Your task to perform on an android device: Open calendar and show me the third week of next month Image 0: 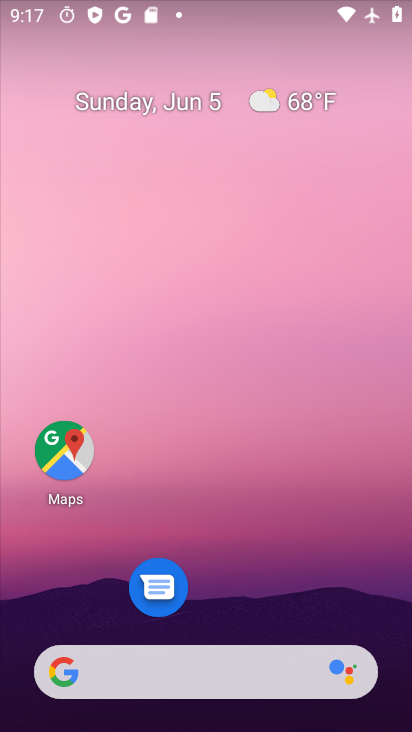
Step 0: drag from (238, 633) to (183, 0)
Your task to perform on an android device: Open calendar and show me the third week of next month Image 1: 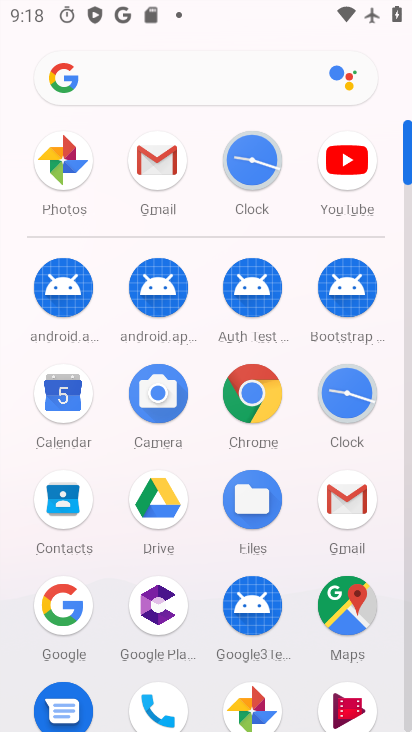
Step 1: click (50, 392)
Your task to perform on an android device: Open calendar and show me the third week of next month Image 2: 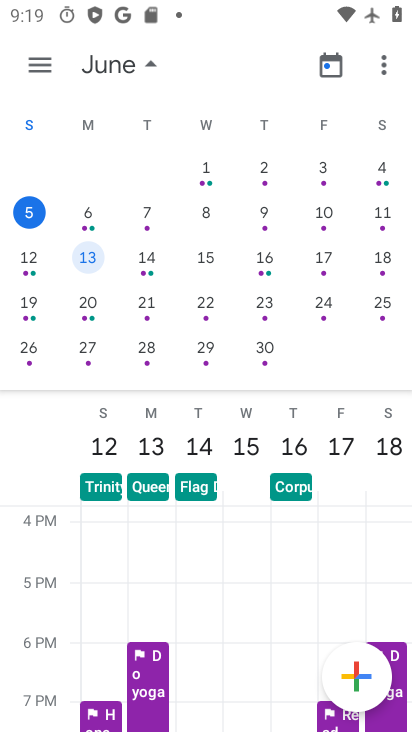
Step 2: click (120, 62)
Your task to perform on an android device: Open calendar and show me the third week of next month Image 3: 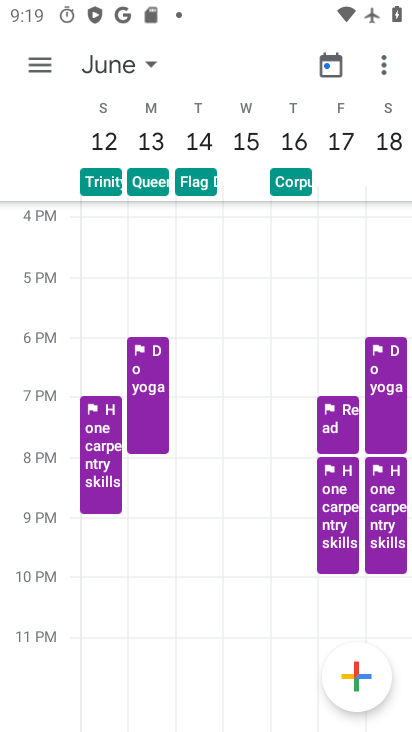
Step 3: click (115, 55)
Your task to perform on an android device: Open calendar and show me the third week of next month Image 4: 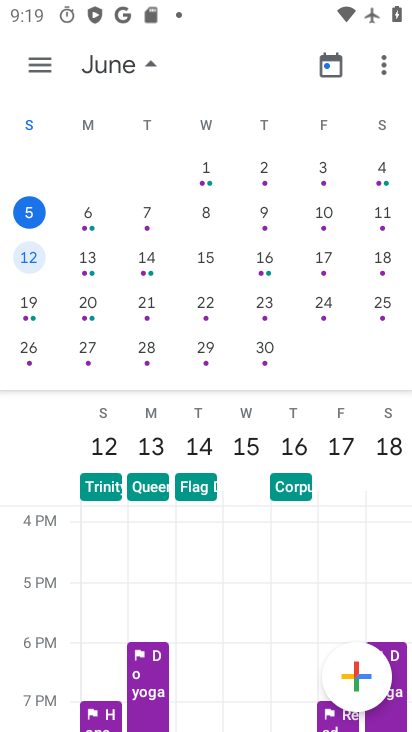
Step 4: drag from (406, 259) to (90, 266)
Your task to perform on an android device: Open calendar and show me the third week of next month Image 5: 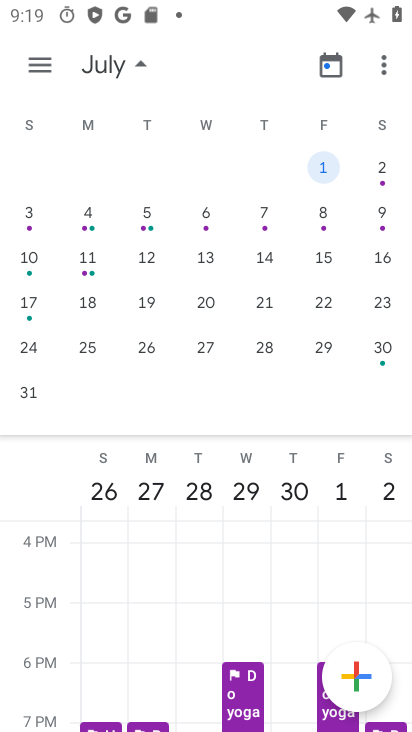
Step 5: click (206, 258)
Your task to perform on an android device: Open calendar and show me the third week of next month Image 6: 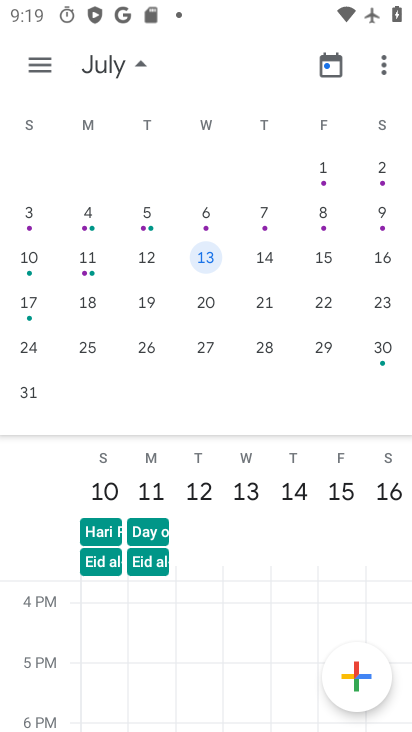
Step 6: task complete